Your task to perform on an android device: change alarm snooze length Image 0: 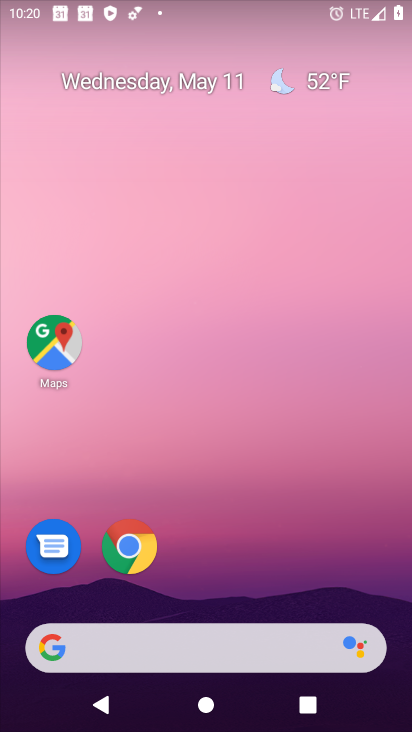
Step 0: drag from (182, 647) to (155, 94)
Your task to perform on an android device: change alarm snooze length Image 1: 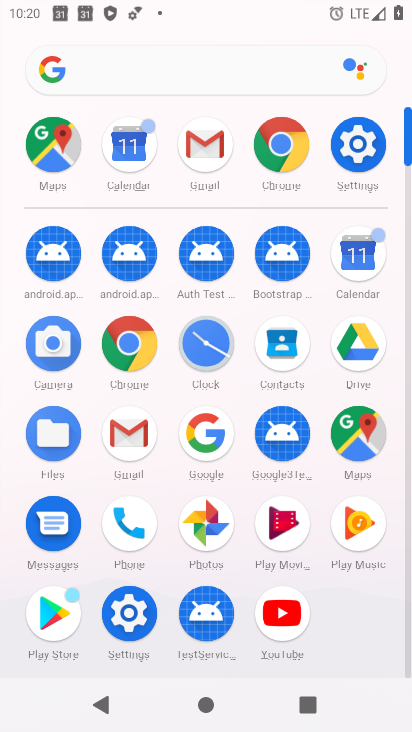
Step 1: click (205, 338)
Your task to perform on an android device: change alarm snooze length Image 2: 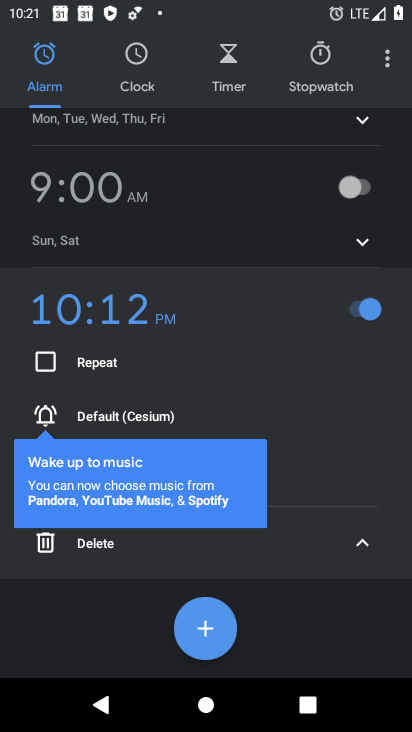
Step 2: click (380, 55)
Your task to perform on an android device: change alarm snooze length Image 3: 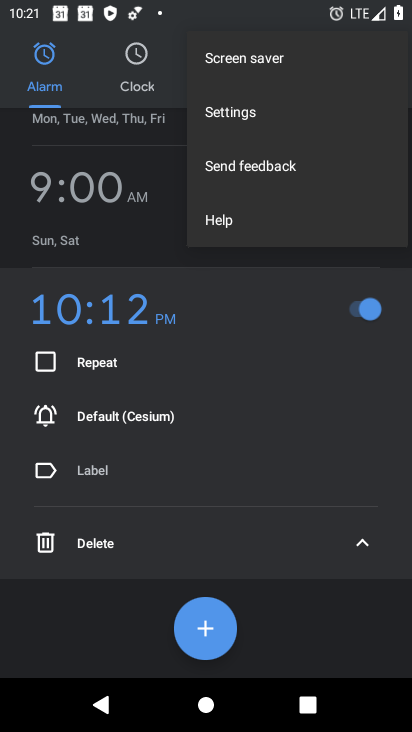
Step 3: click (257, 119)
Your task to perform on an android device: change alarm snooze length Image 4: 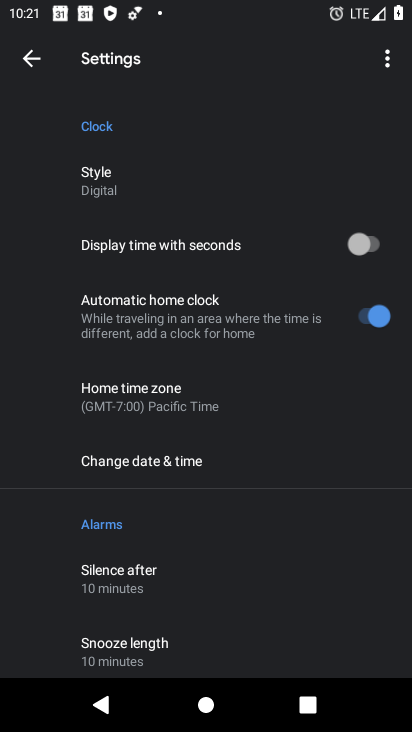
Step 4: click (133, 645)
Your task to perform on an android device: change alarm snooze length Image 5: 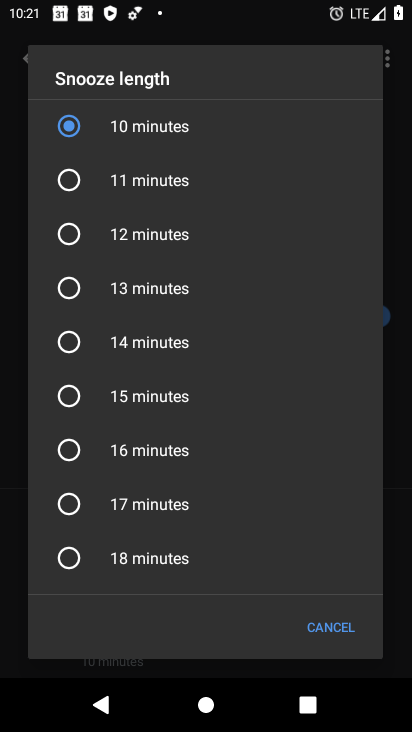
Step 5: click (64, 559)
Your task to perform on an android device: change alarm snooze length Image 6: 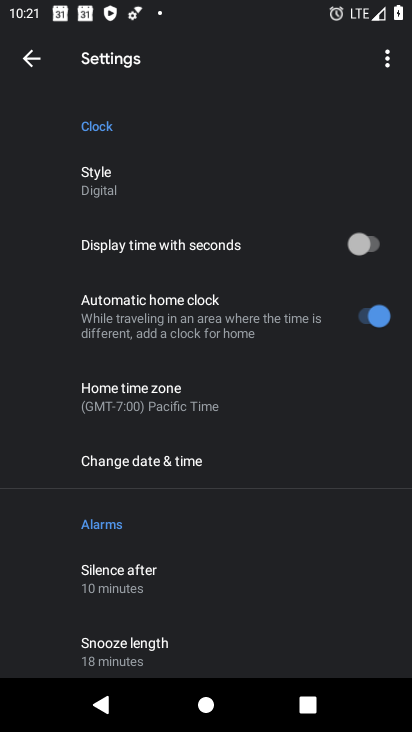
Step 6: task complete